Your task to perform on an android device: Show the shopping cart on walmart.com. Search for lg ultragear on walmart.com, select the first entry, and add it to the cart. Image 0: 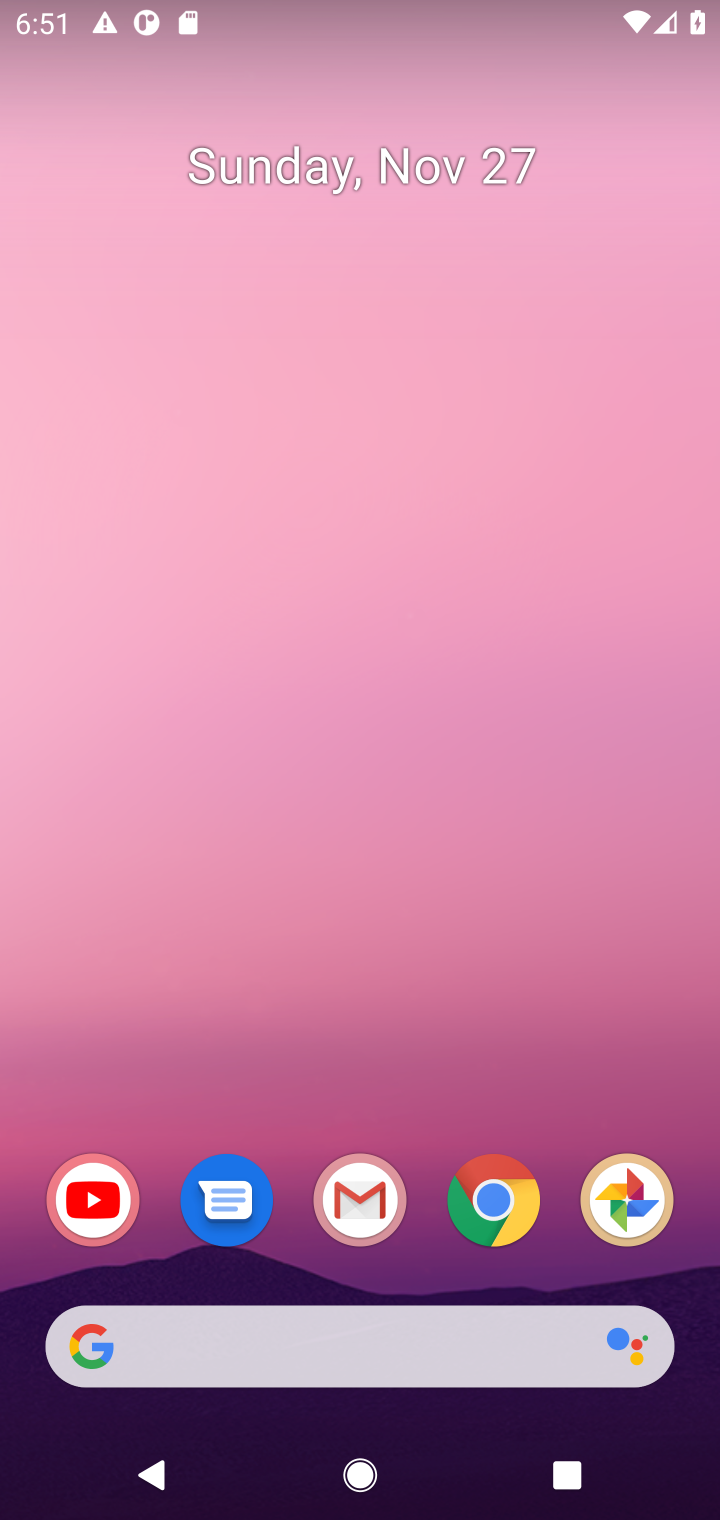
Step 0: click (514, 1202)
Your task to perform on an android device: Show the shopping cart on walmart.com. Search for lg ultragear on walmart.com, select the first entry, and add it to the cart. Image 1: 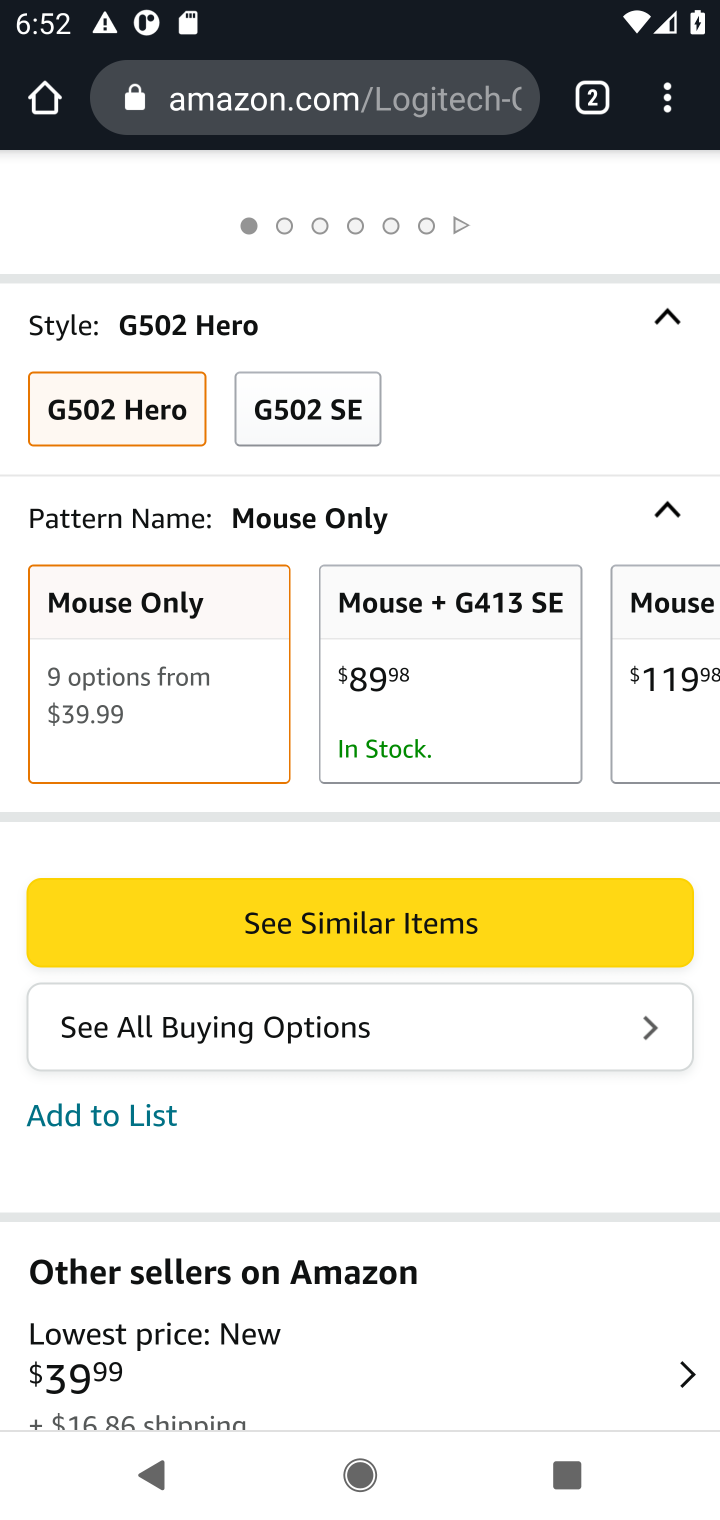
Step 1: click (307, 105)
Your task to perform on an android device: Show the shopping cart on walmart.com. Search for lg ultragear on walmart.com, select the first entry, and add it to the cart. Image 2: 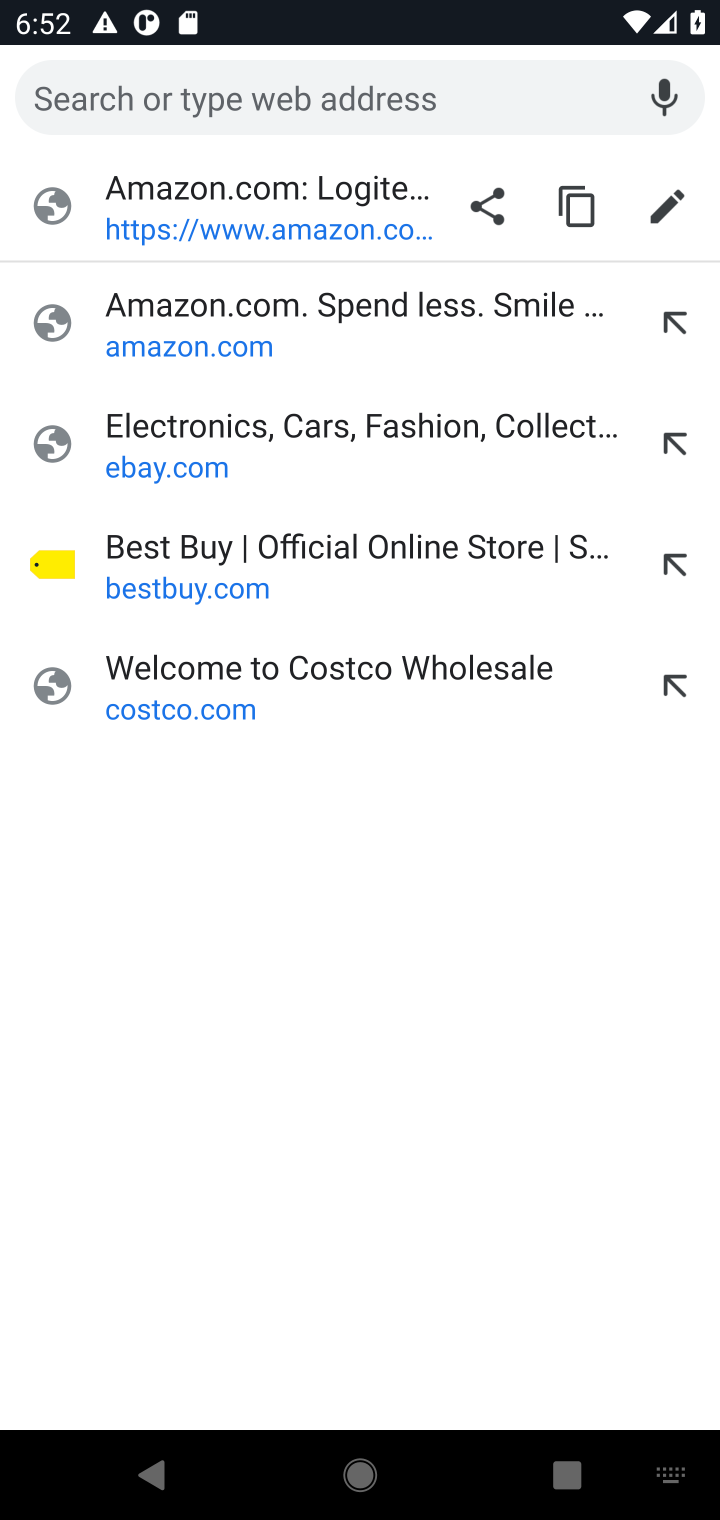
Step 2: type "walmart.com"
Your task to perform on an android device: Show the shopping cart on walmart.com. Search for lg ultragear on walmart.com, select the first entry, and add it to the cart. Image 3: 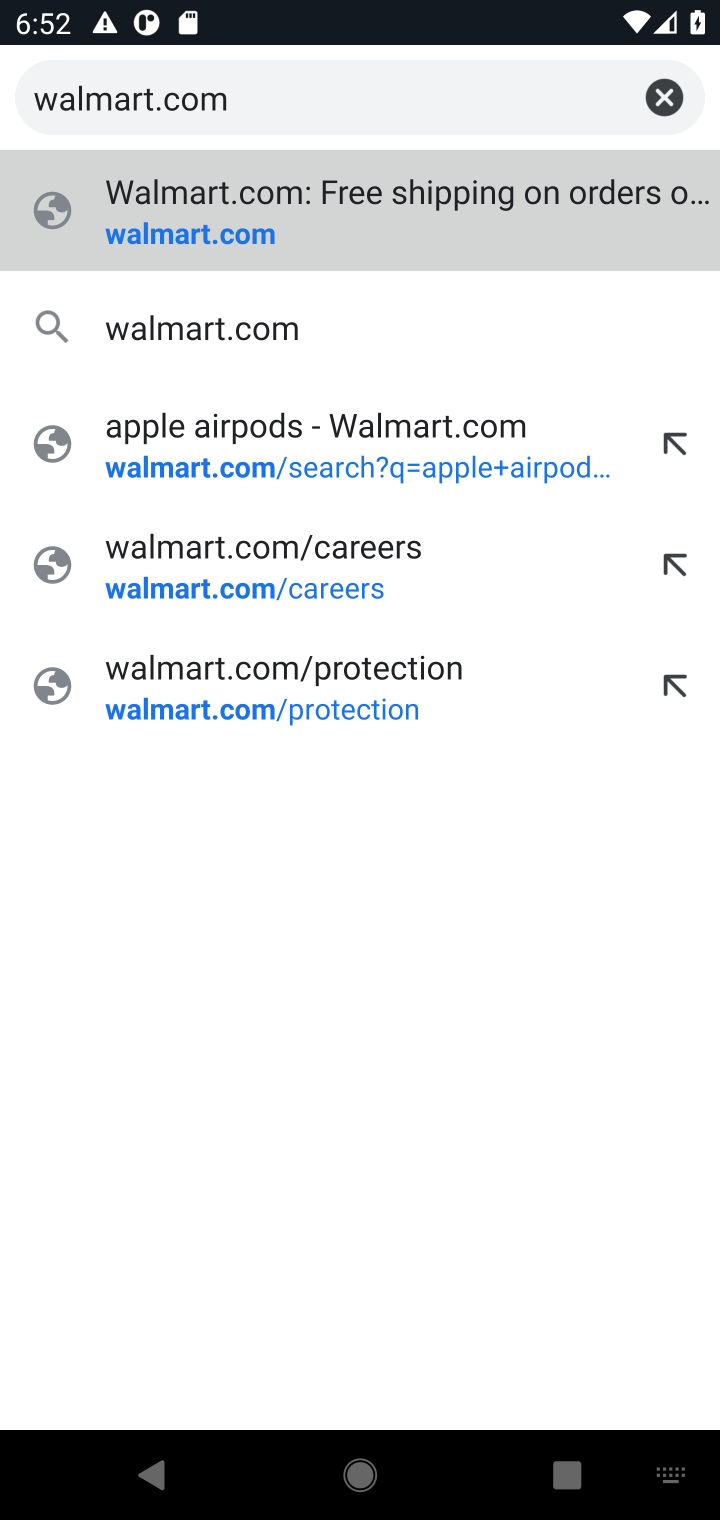
Step 3: click (149, 237)
Your task to perform on an android device: Show the shopping cart on walmart.com. Search for lg ultragear on walmart.com, select the first entry, and add it to the cart. Image 4: 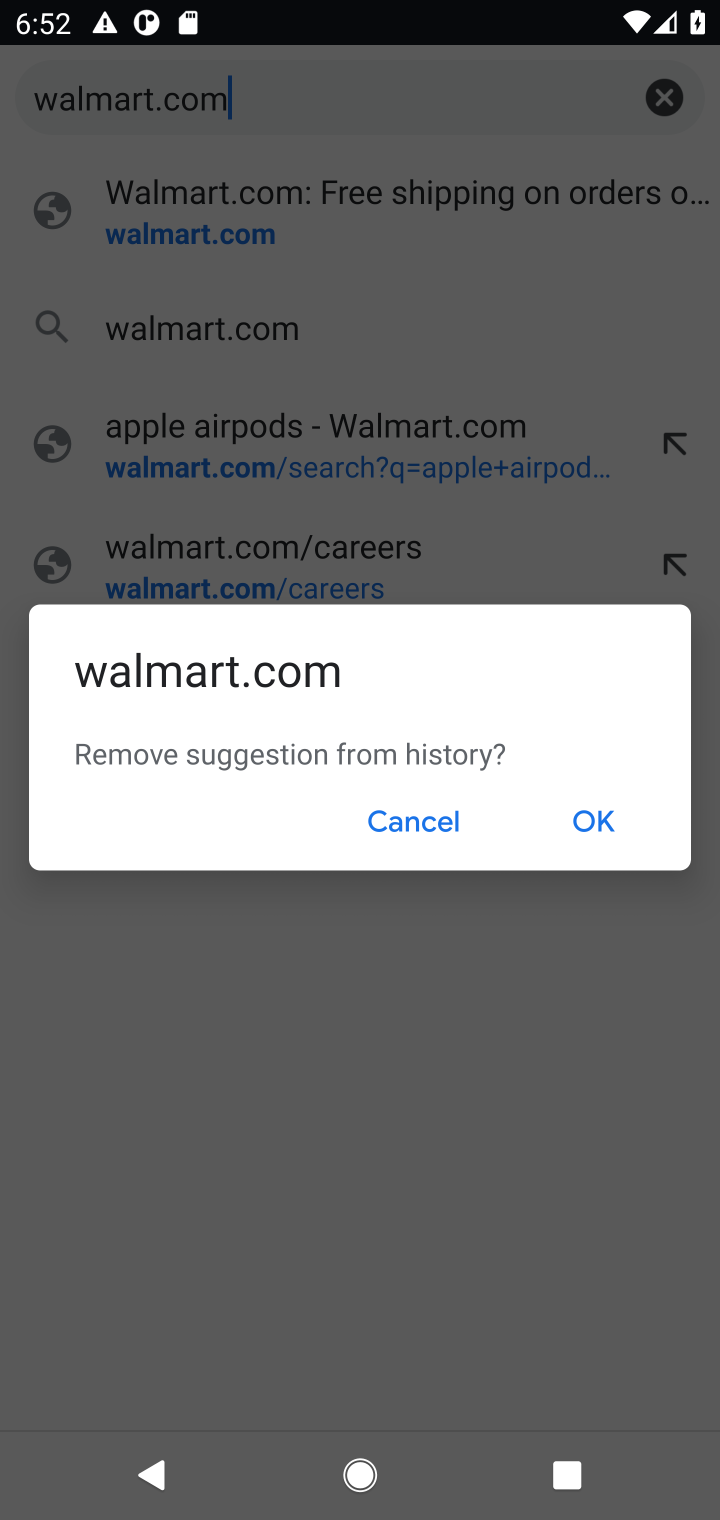
Step 4: click (418, 821)
Your task to perform on an android device: Show the shopping cart on walmart.com. Search for lg ultragear on walmart.com, select the first entry, and add it to the cart. Image 5: 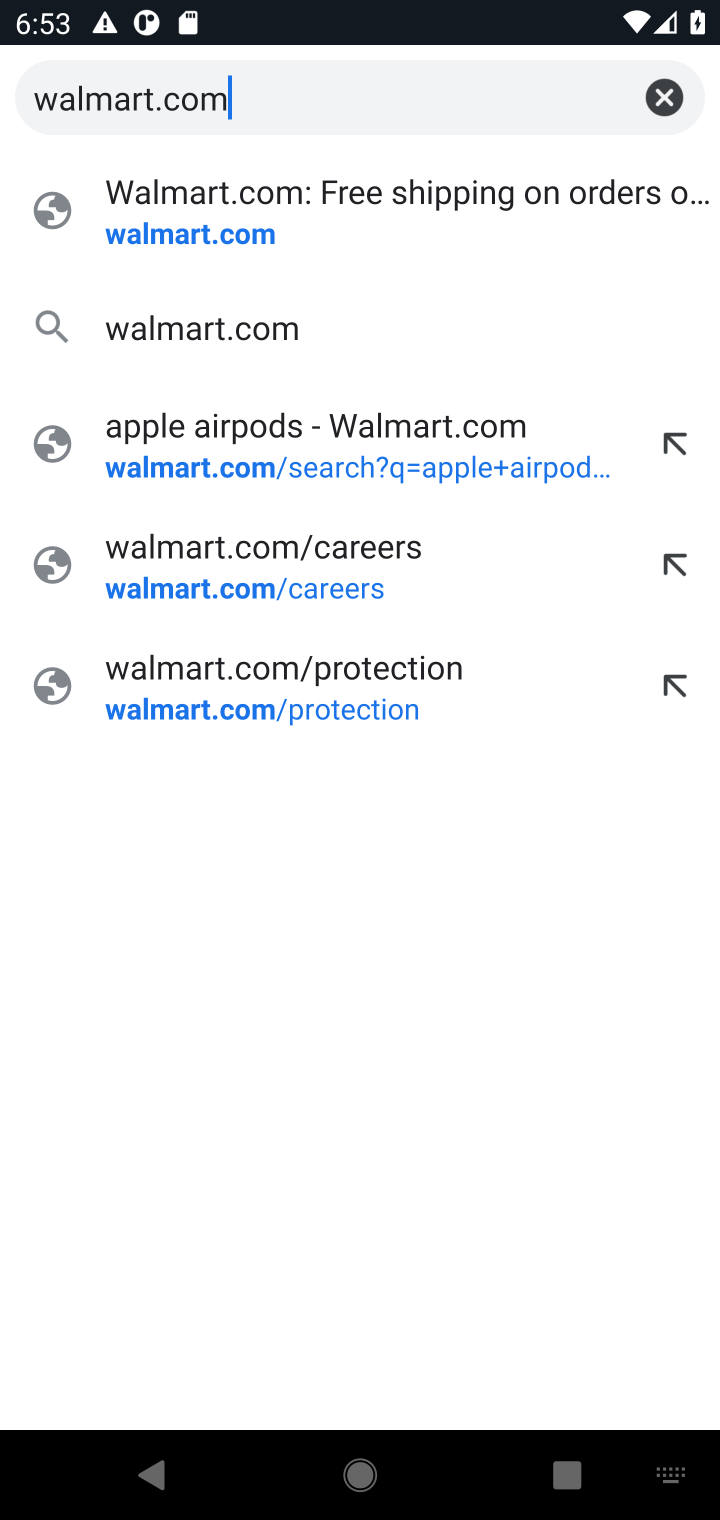
Step 5: click (167, 241)
Your task to perform on an android device: Show the shopping cart on walmart.com. Search for lg ultragear on walmart.com, select the first entry, and add it to the cart. Image 6: 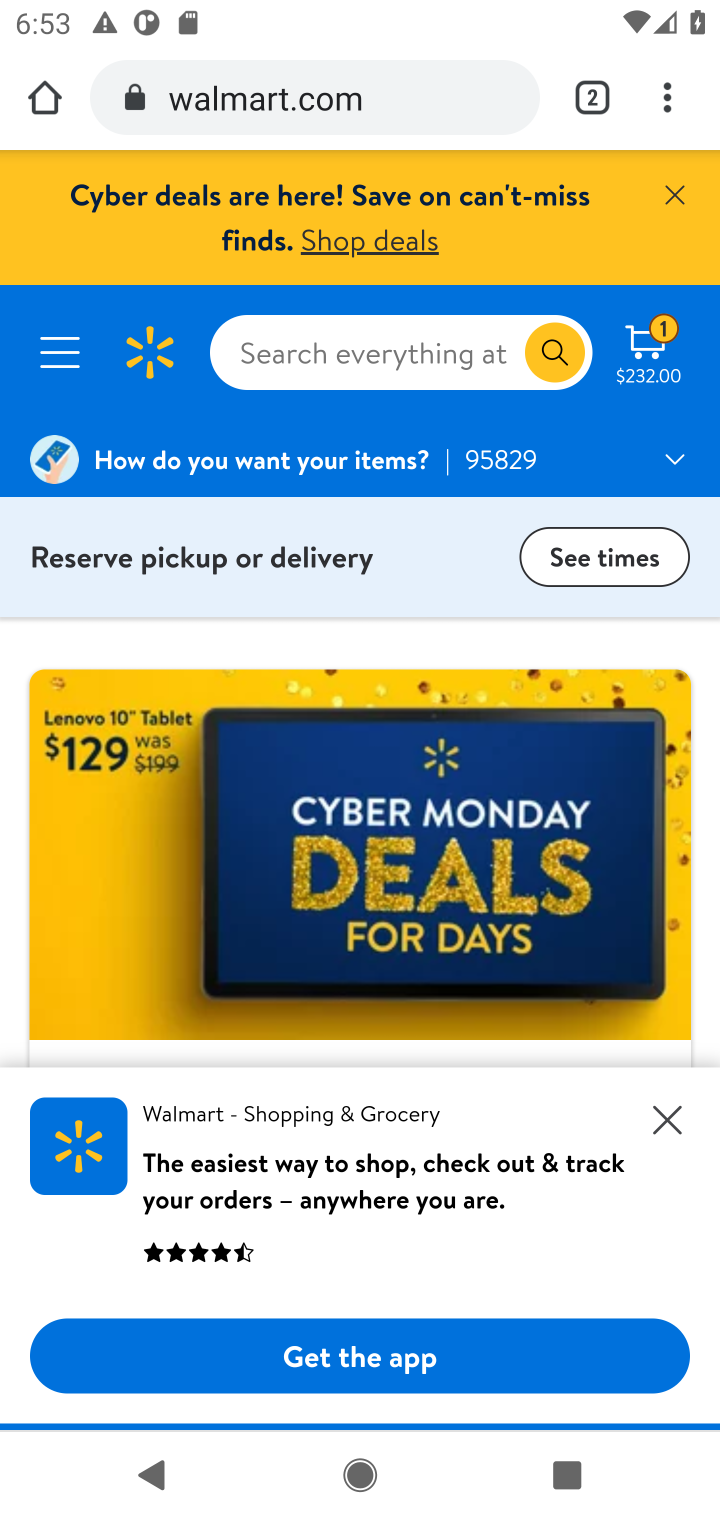
Step 6: click (651, 333)
Your task to perform on an android device: Show the shopping cart on walmart.com. Search for lg ultragear on walmart.com, select the first entry, and add it to the cart. Image 7: 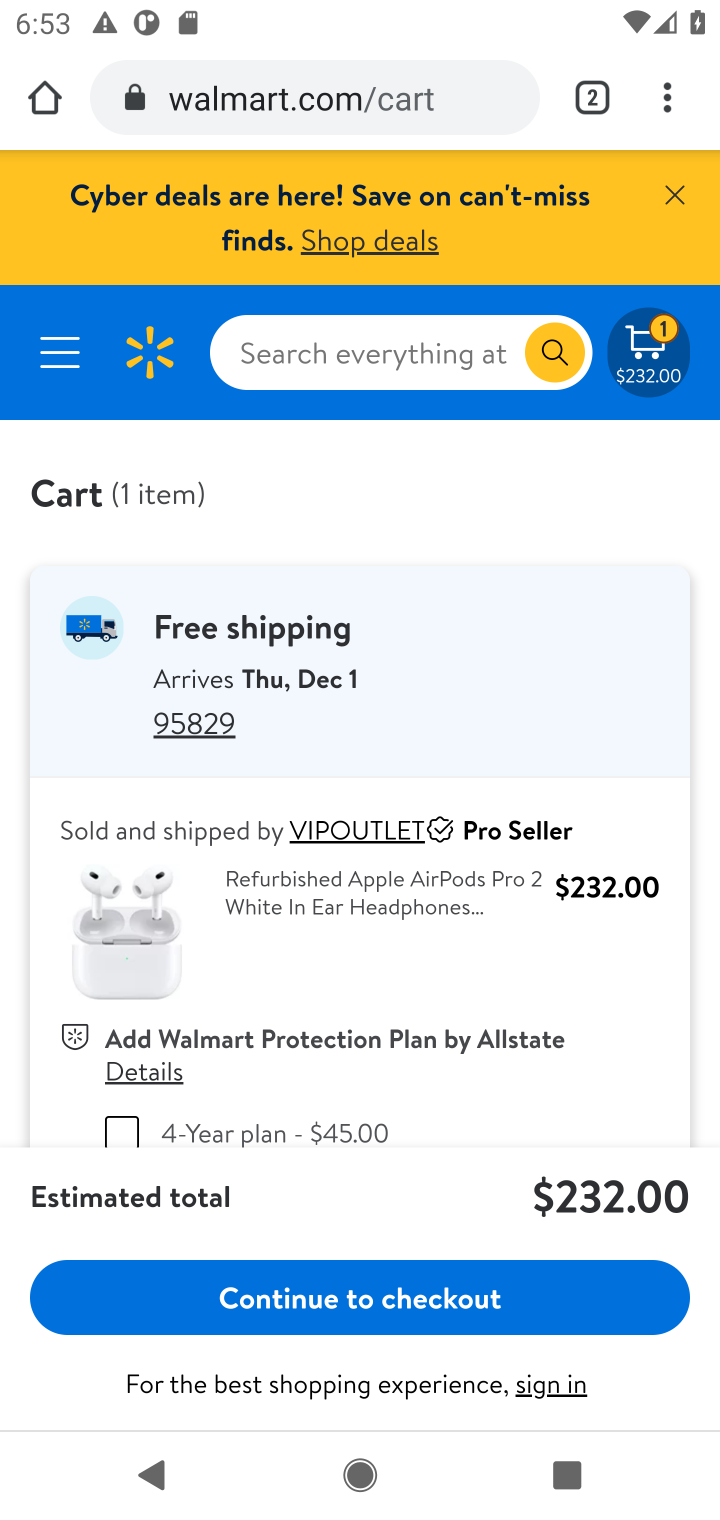
Step 7: click (294, 348)
Your task to perform on an android device: Show the shopping cart on walmart.com. Search for lg ultragear on walmart.com, select the first entry, and add it to the cart. Image 8: 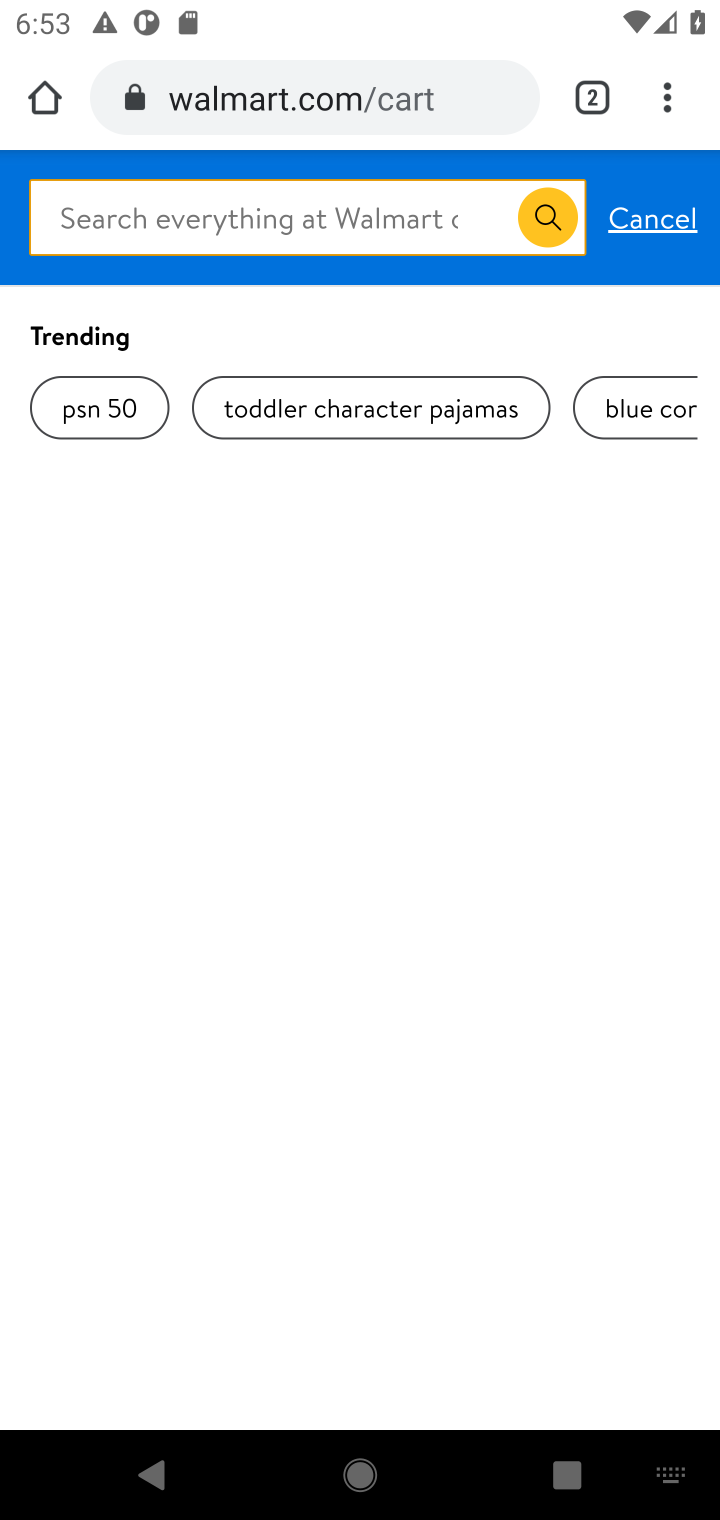
Step 8: type " lg ultragear"
Your task to perform on an android device: Show the shopping cart on walmart.com. Search for lg ultragear on walmart.com, select the first entry, and add it to the cart. Image 9: 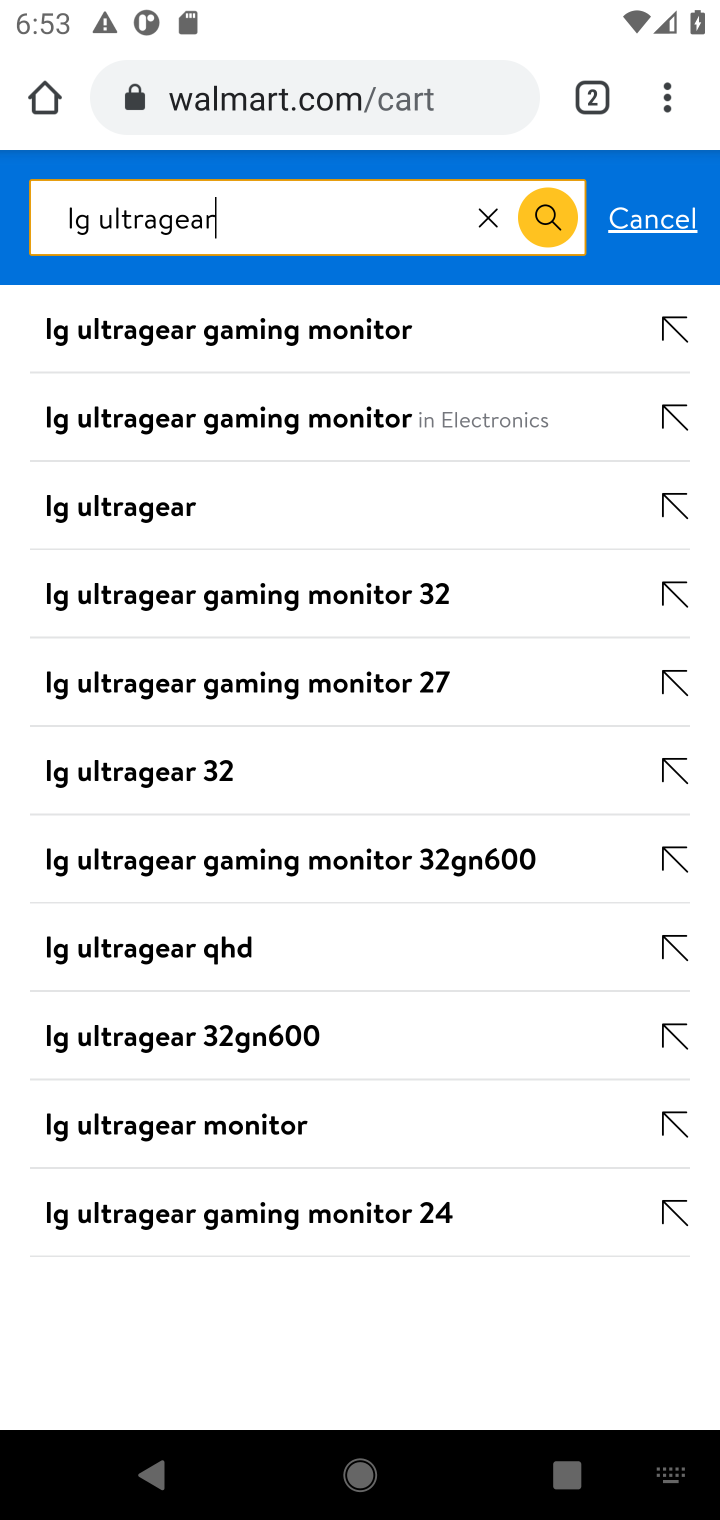
Step 9: click (103, 504)
Your task to perform on an android device: Show the shopping cart on walmart.com. Search for lg ultragear on walmart.com, select the first entry, and add it to the cart. Image 10: 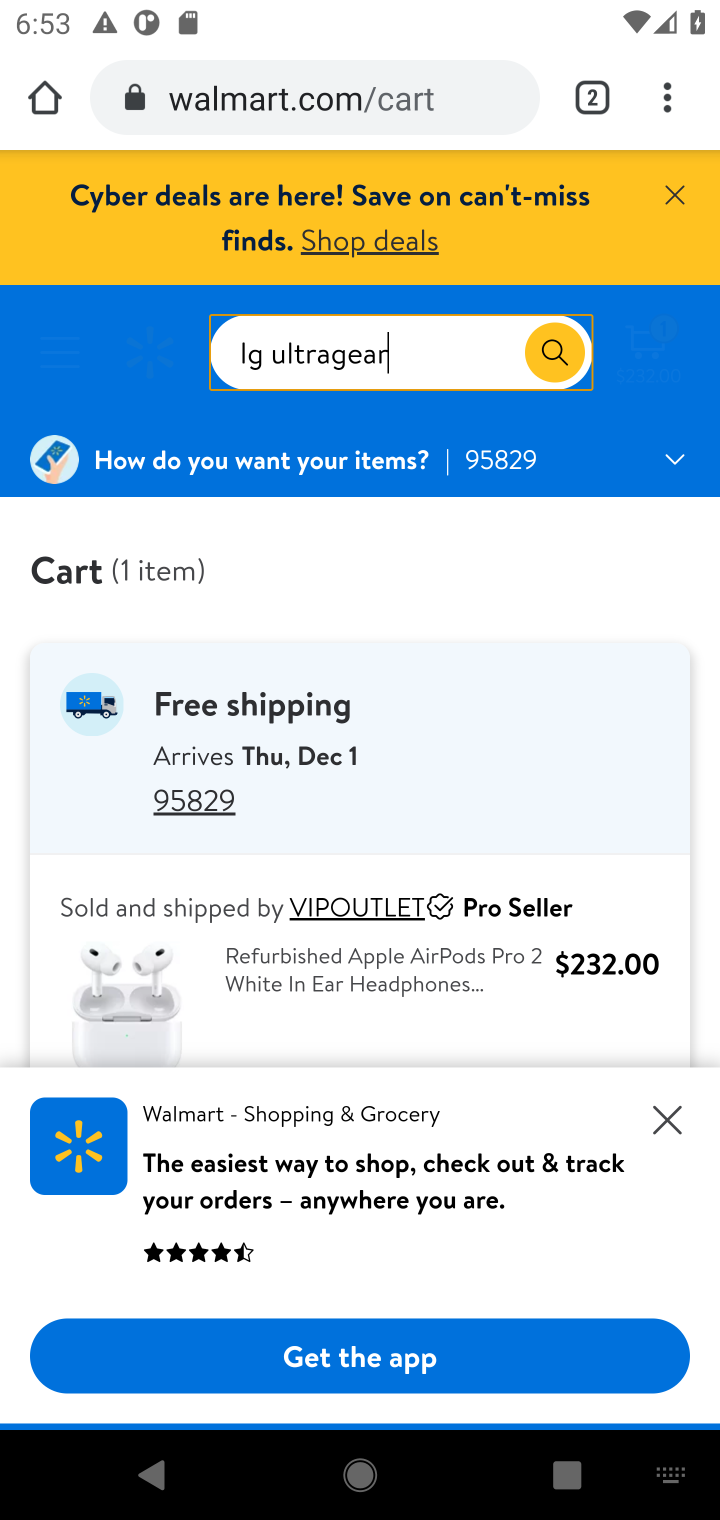
Step 10: click (103, 504)
Your task to perform on an android device: Show the shopping cart on walmart.com. Search for lg ultragear on walmart.com, select the first entry, and add it to the cart. Image 11: 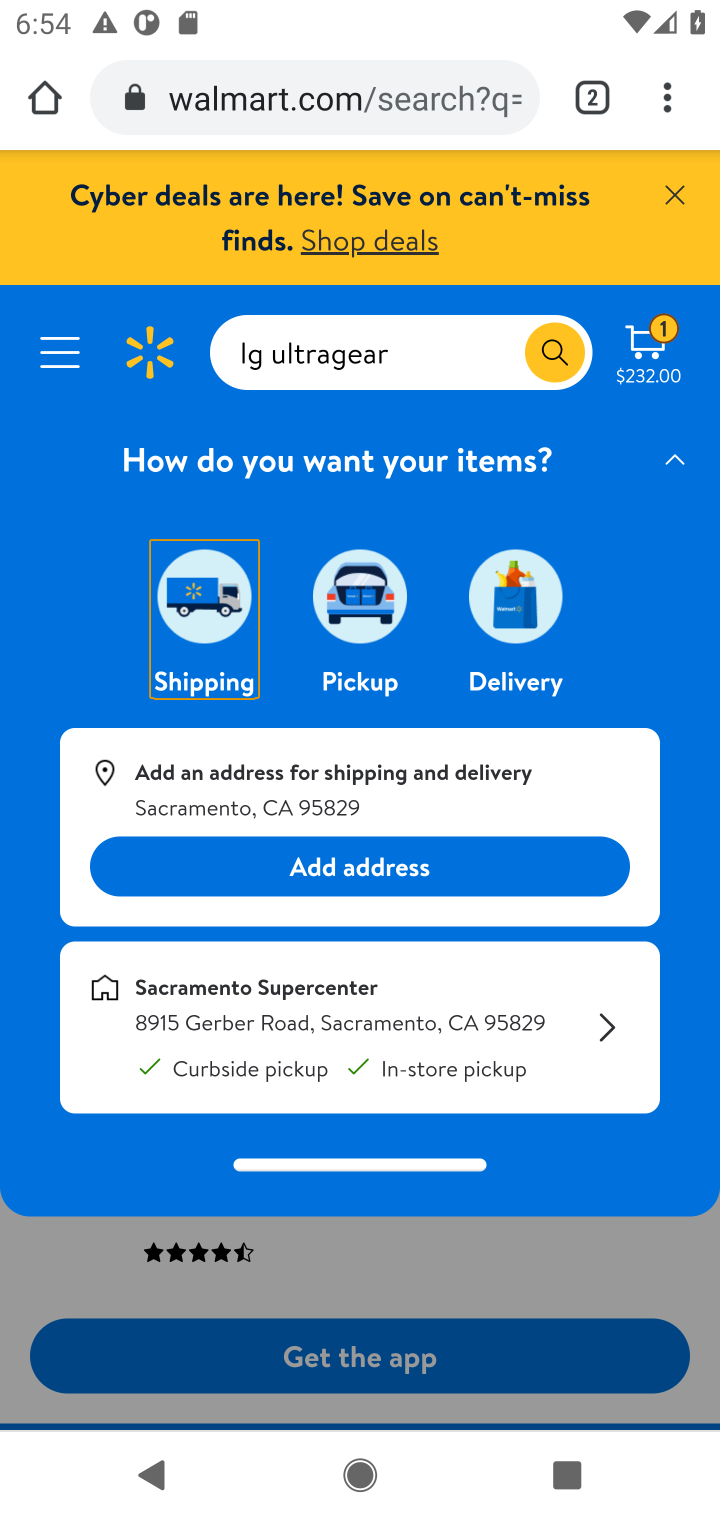
Step 11: drag from (382, 849) to (382, 929)
Your task to perform on an android device: Show the shopping cart on walmart.com. Search for lg ultragear on walmart.com, select the first entry, and add it to the cart. Image 12: 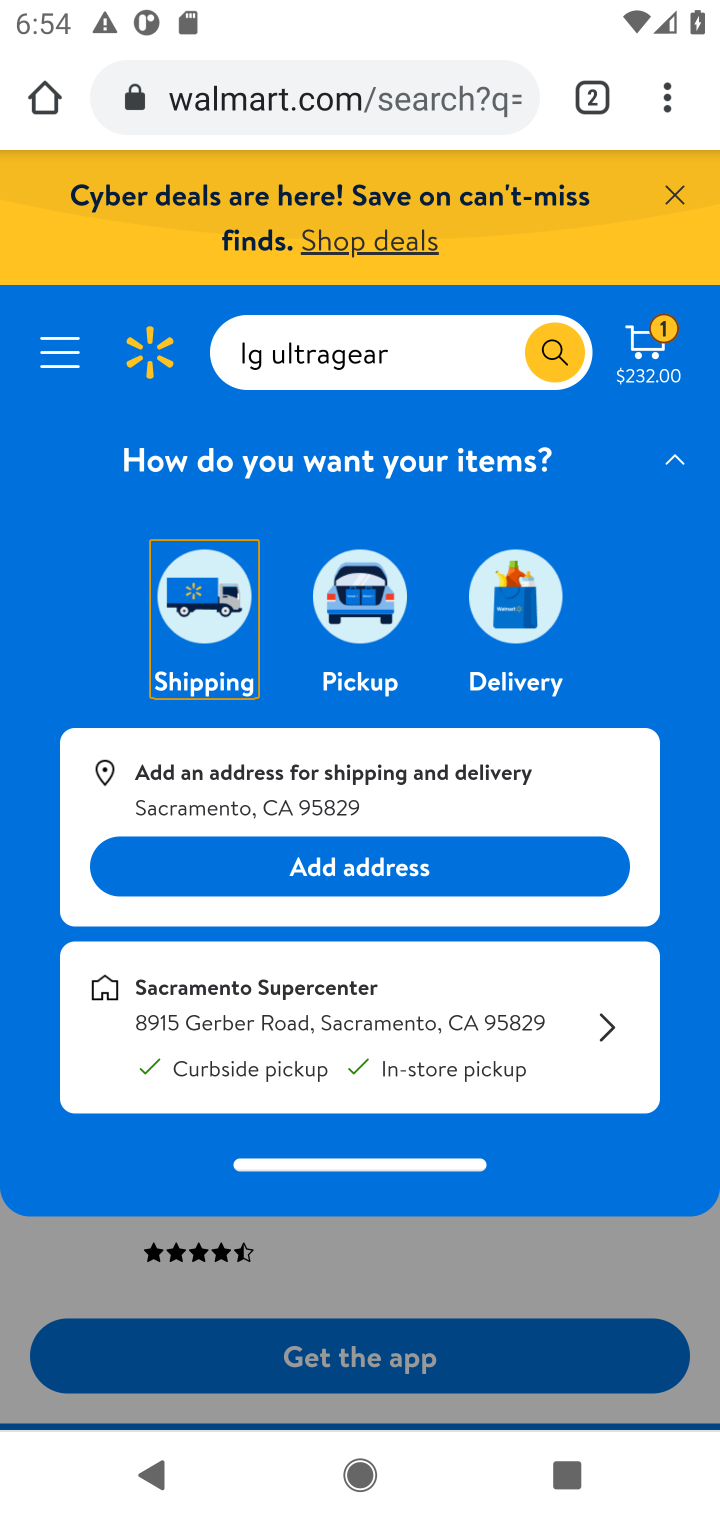
Step 12: click (441, 344)
Your task to perform on an android device: Show the shopping cart on walmart.com. Search for lg ultragear on walmart.com, select the first entry, and add it to the cart. Image 13: 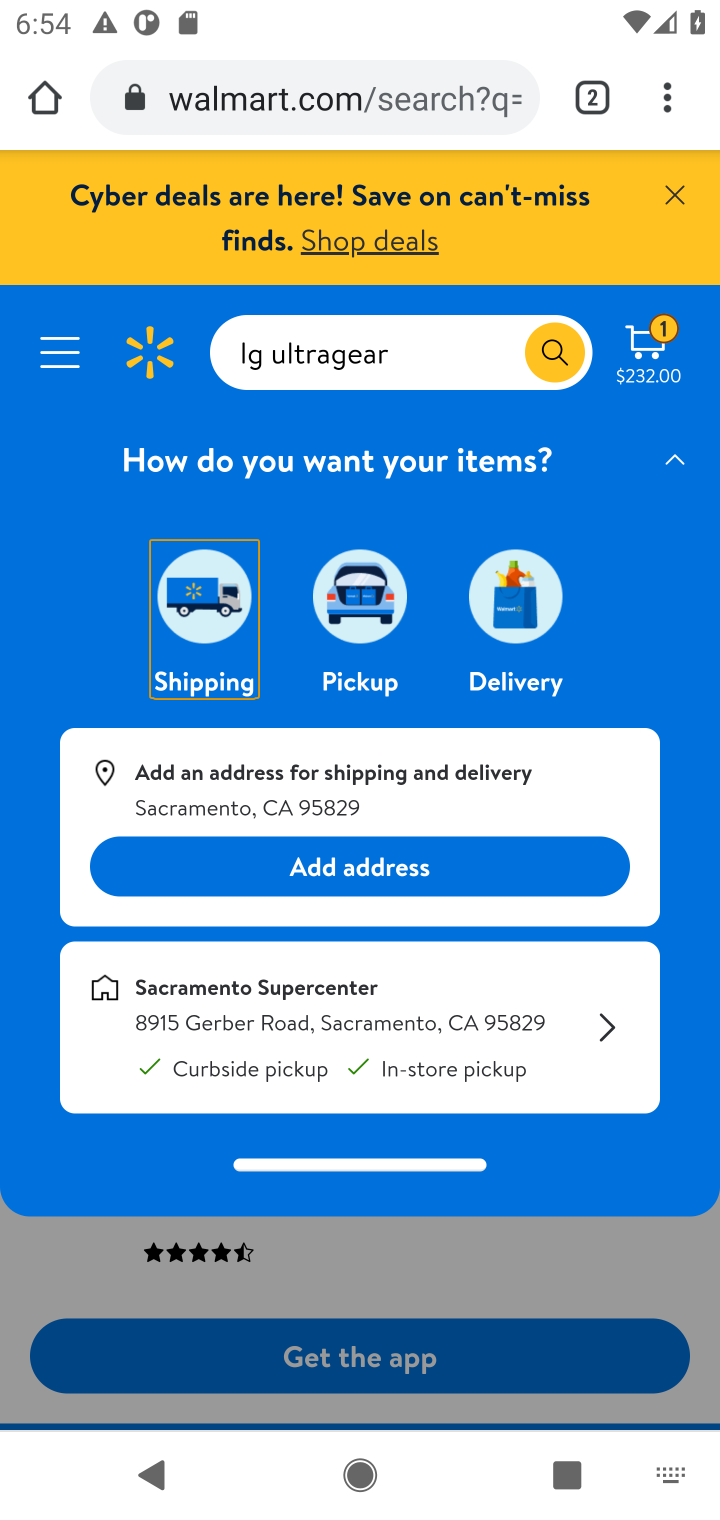
Step 13: click (557, 359)
Your task to perform on an android device: Show the shopping cart on walmart.com. Search for lg ultragear on walmart.com, select the first entry, and add it to the cart. Image 14: 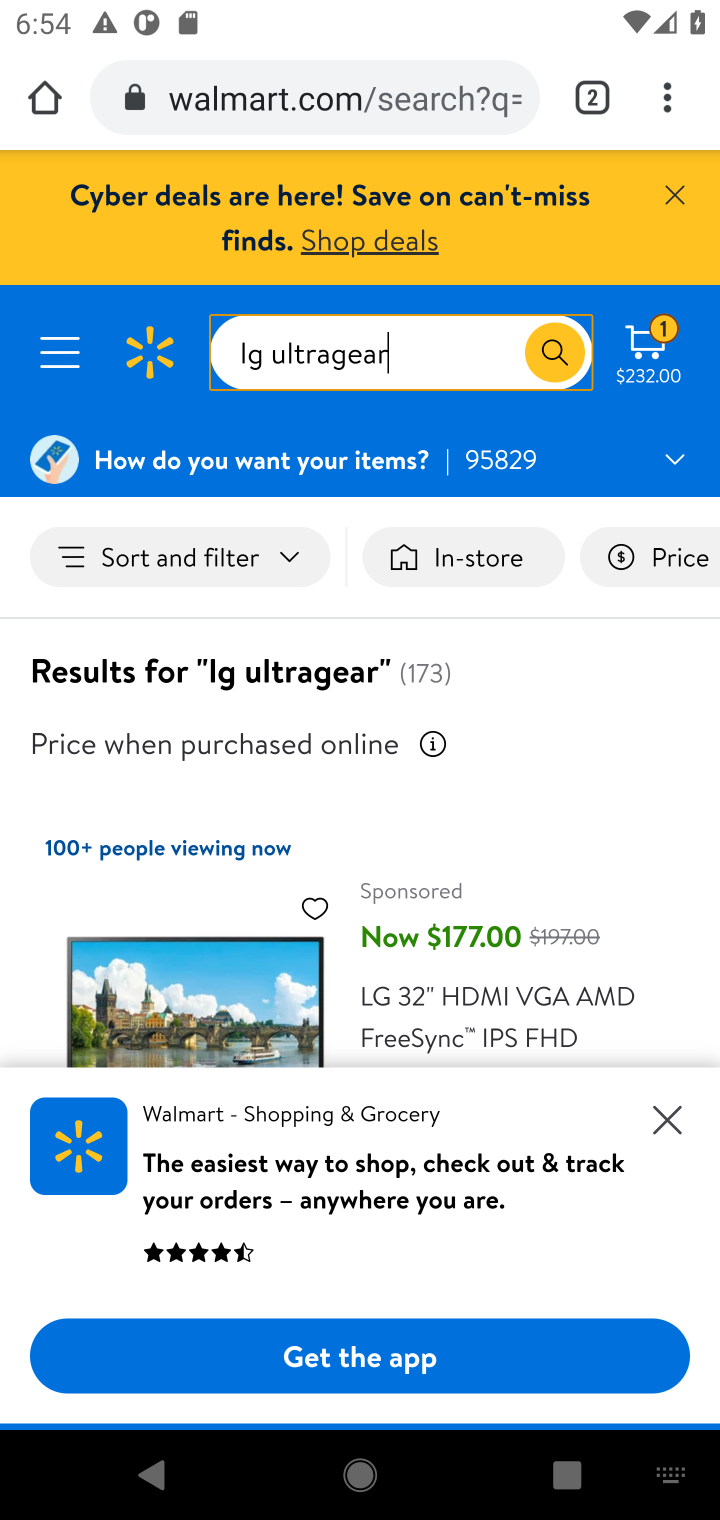
Step 14: task complete